Your task to perform on an android device: allow notifications from all sites in the chrome app Image 0: 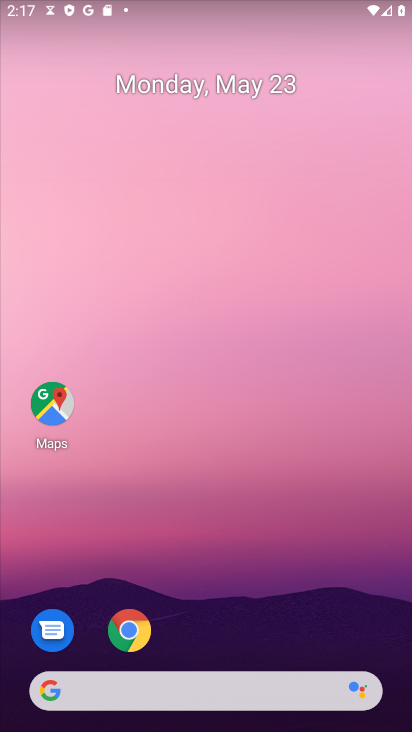
Step 0: drag from (326, 549) to (277, 91)
Your task to perform on an android device: allow notifications from all sites in the chrome app Image 1: 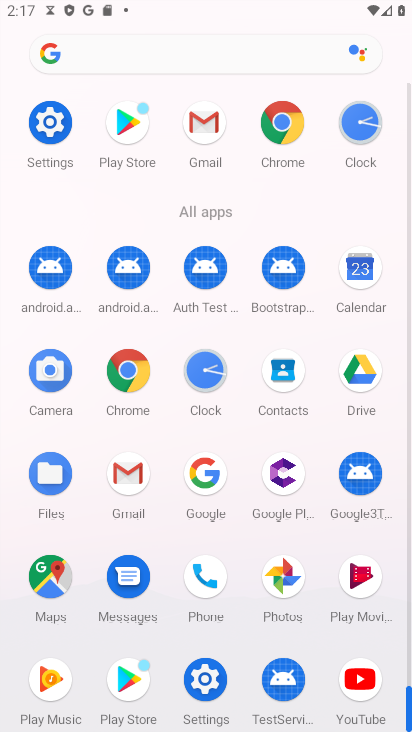
Step 1: click (266, 102)
Your task to perform on an android device: allow notifications from all sites in the chrome app Image 2: 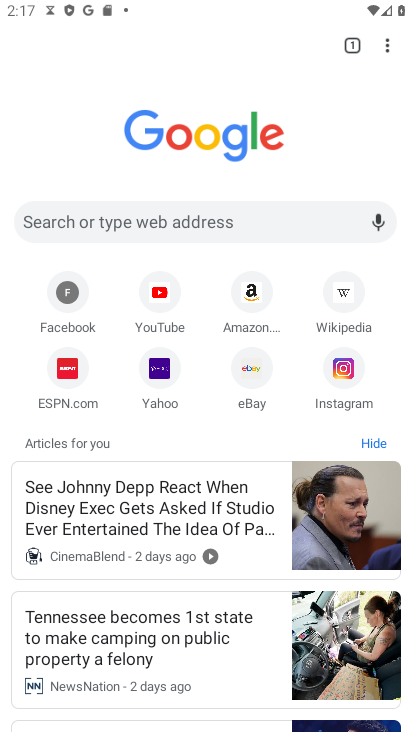
Step 2: drag from (385, 45) to (231, 377)
Your task to perform on an android device: allow notifications from all sites in the chrome app Image 3: 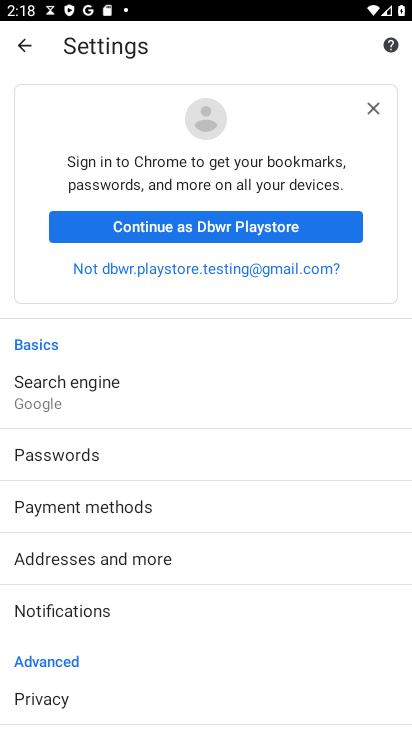
Step 3: drag from (142, 615) to (160, 183)
Your task to perform on an android device: allow notifications from all sites in the chrome app Image 4: 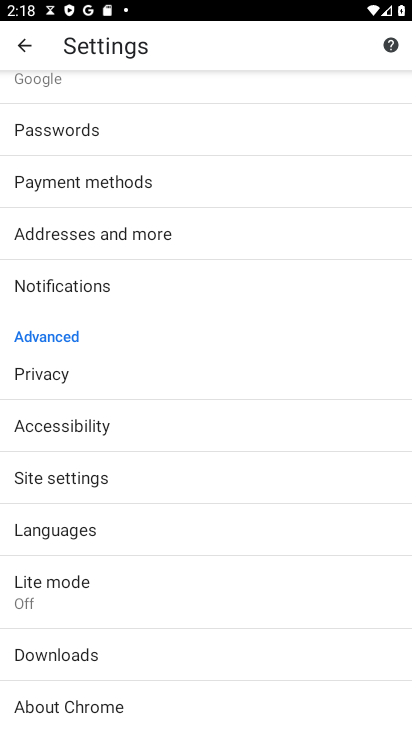
Step 4: click (37, 478)
Your task to perform on an android device: allow notifications from all sites in the chrome app Image 5: 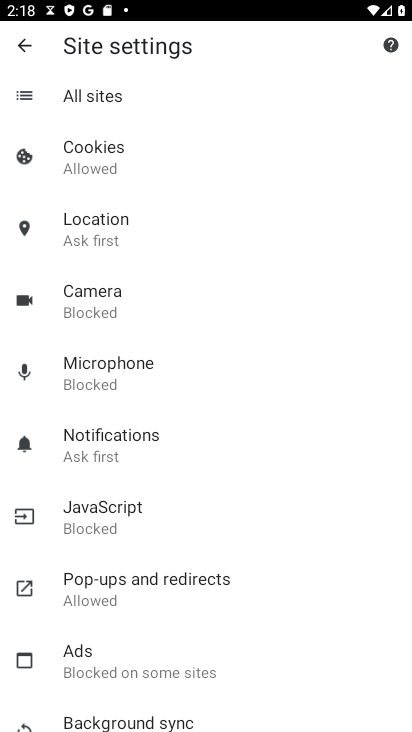
Step 5: drag from (152, 554) to (144, 55)
Your task to perform on an android device: allow notifications from all sites in the chrome app Image 6: 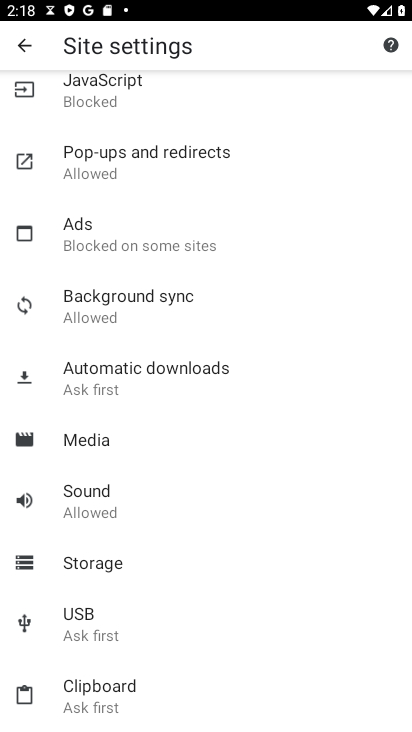
Step 6: drag from (175, 597) to (142, 238)
Your task to perform on an android device: allow notifications from all sites in the chrome app Image 7: 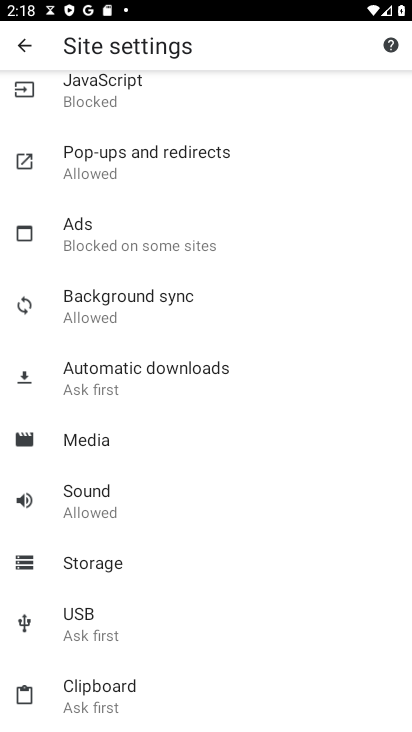
Step 7: drag from (105, 190) to (72, 618)
Your task to perform on an android device: allow notifications from all sites in the chrome app Image 8: 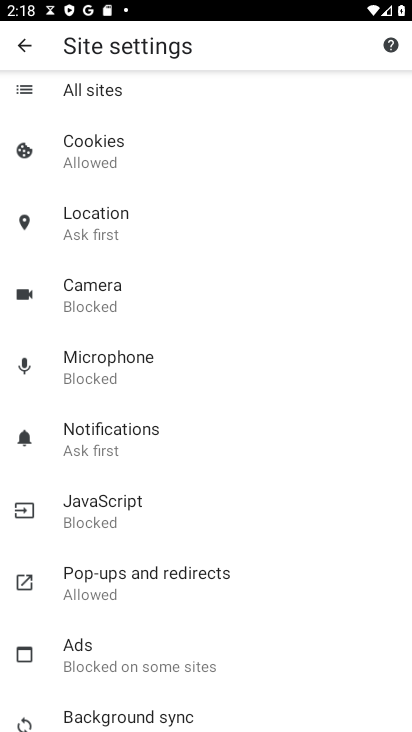
Step 8: click (114, 437)
Your task to perform on an android device: allow notifications from all sites in the chrome app Image 9: 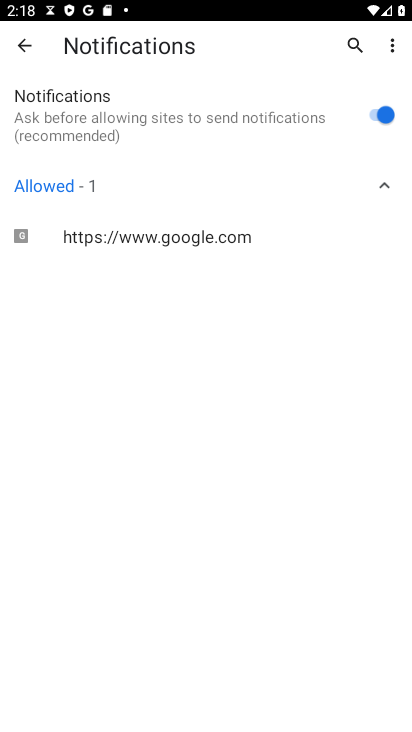
Step 9: task complete